Your task to perform on an android device: refresh tabs in the chrome app Image 0: 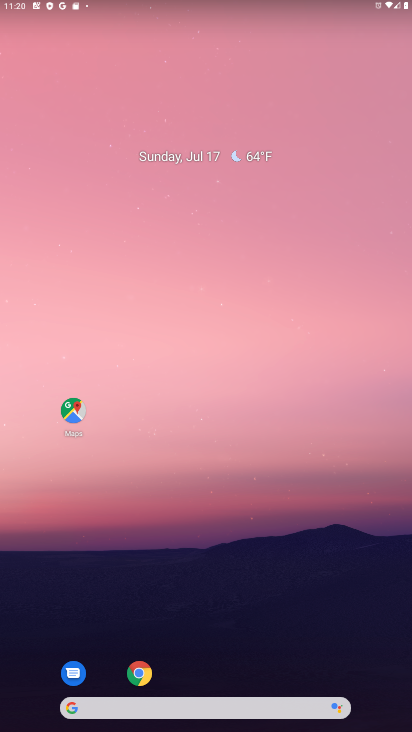
Step 0: click (146, 671)
Your task to perform on an android device: refresh tabs in the chrome app Image 1: 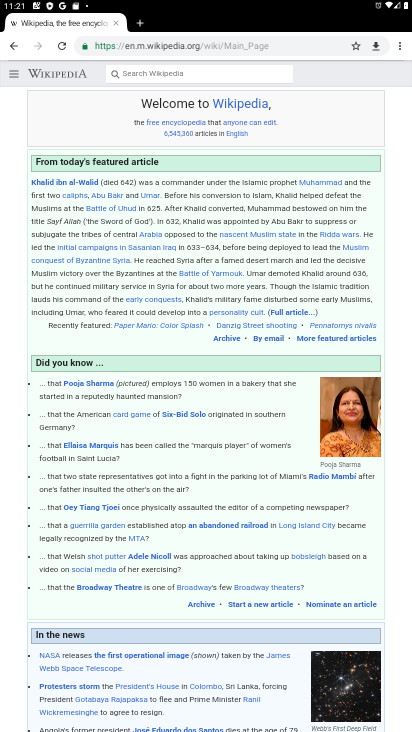
Step 1: click (60, 50)
Your task to perform on an android device: refresh tabs in the chrome app Image 2: 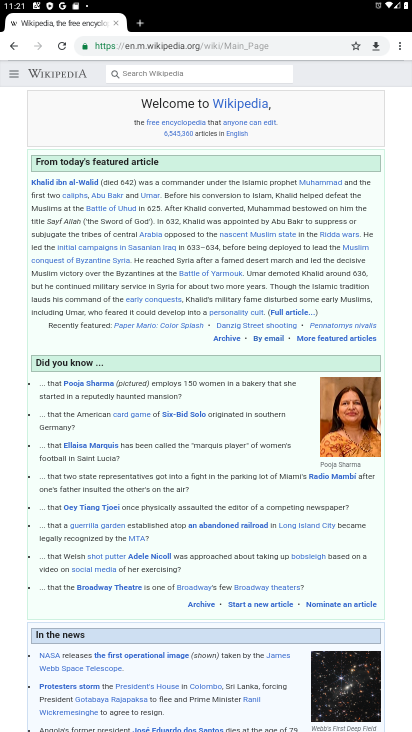
Step 2: task complete